Your task to perform on an android device: toggle sleep mode Image 0: 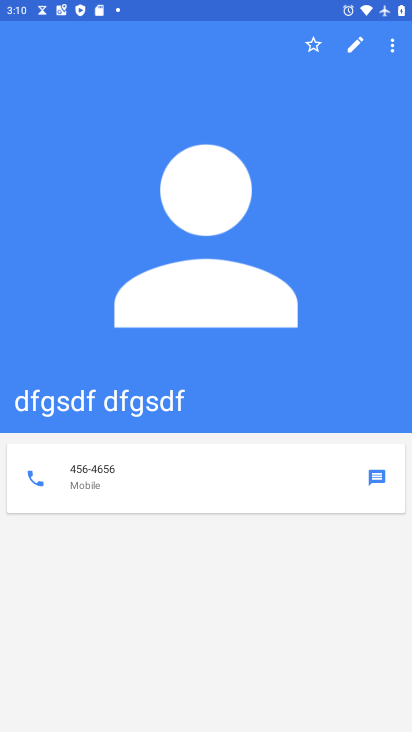
Step 0: press home button
Your task to perform on an android device: toggle sleep mode Image 1: 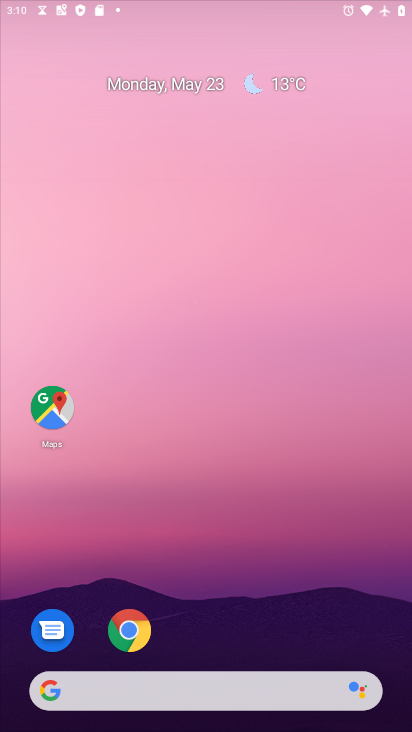
Step 1: drag from (276, 533) to (198, 0)
Your task to perform on an android device: toggle sleep mode Image 2: 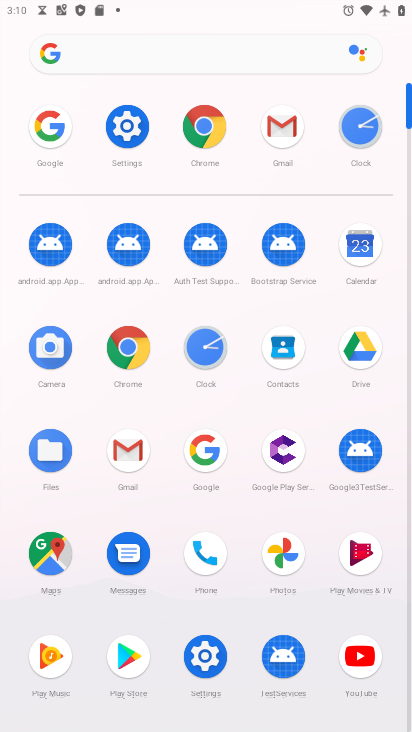
Step 2: click (130, 79)
Your task to perform on an android device: toggle sleep mode Image 3: 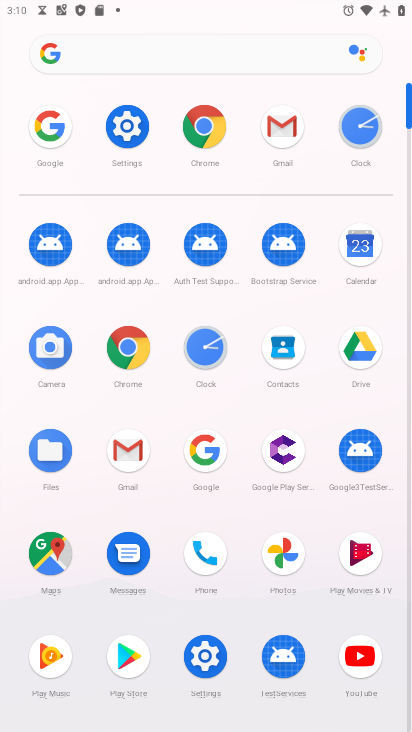
Step 3: click (130, 114)
Your task to perform on an android device: toggle sleep mode Image 4: 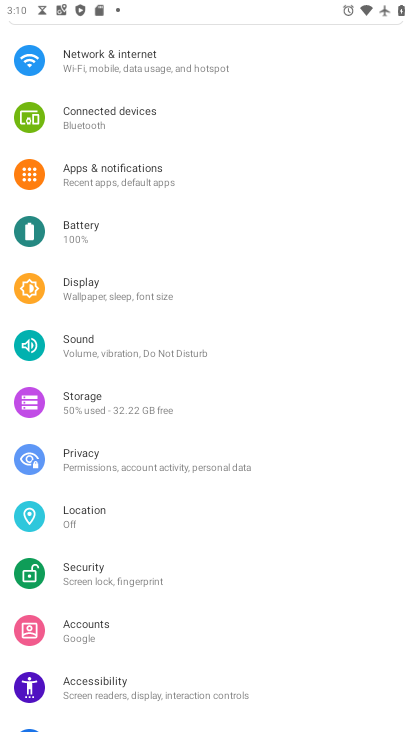
Step 4: click (159, 276)
Your task to perform on an android device: toggle sleep mode Image 5: 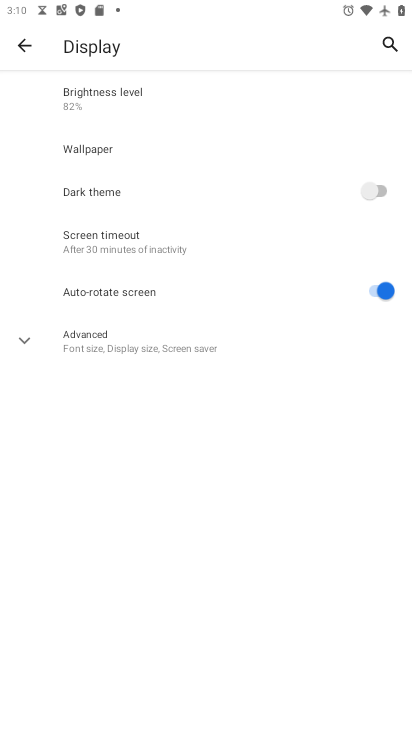
Step 5: task complete